Your task to perform on an android device: toggle javascript in the chrome app Image 0: 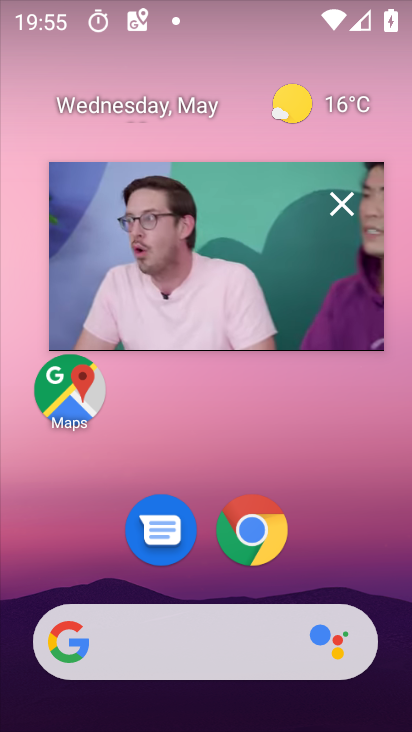
Step 0: press home button
Your task to perform on an android device: toggle javascript in the chrome app Image 1: 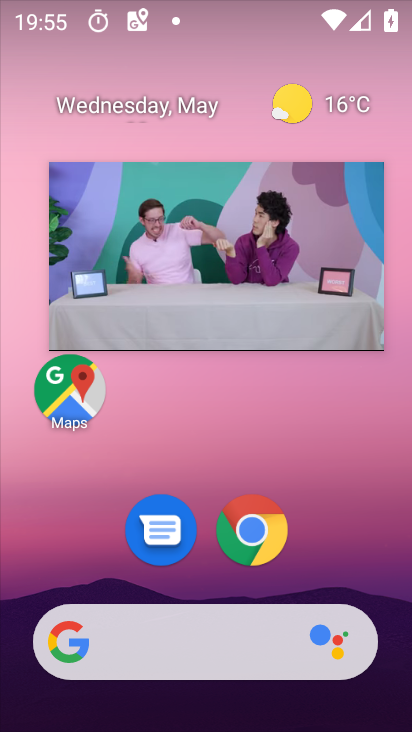
Step 1: click (198, 246)
Your task to perform on an android device: toggle javascript in the chrome app Image 2: 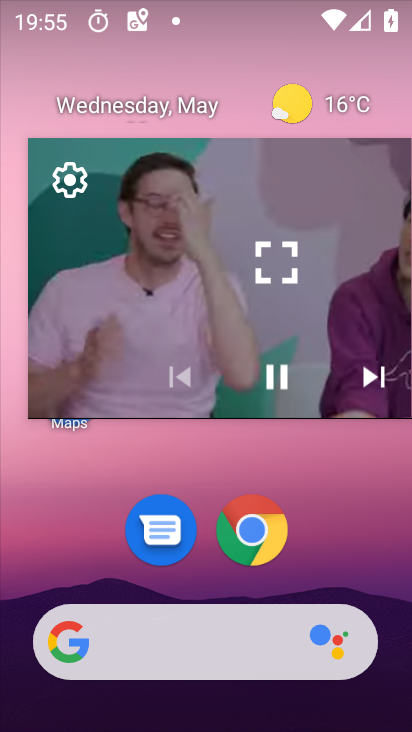
Step 2: click (262, 209)
Your task to perform on an android device: toggle javascript in the chrome app Image 3: 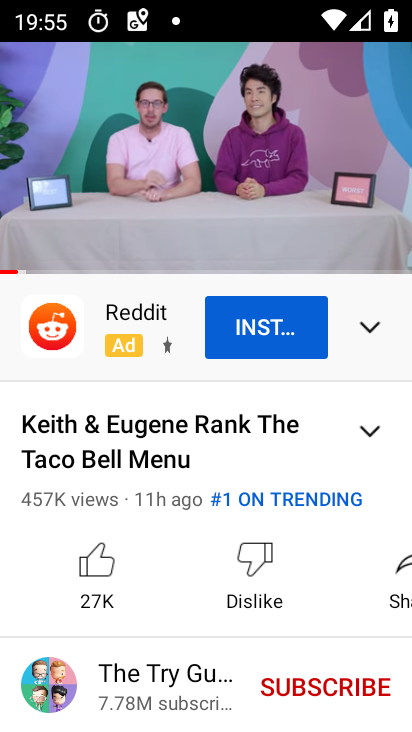
Step 3: press home button
Your task to perform on an android device: toggle javascript in the chrome app Image 4: 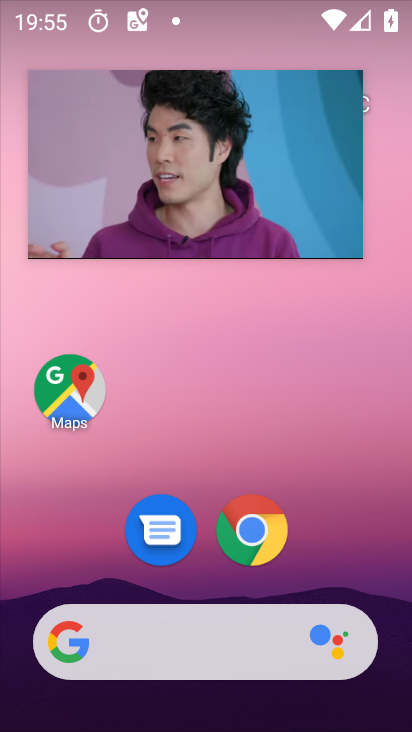
Step 4: click (237, 542)
Your task to perform on an android device: toggle javascript in the chrome app Image 5: 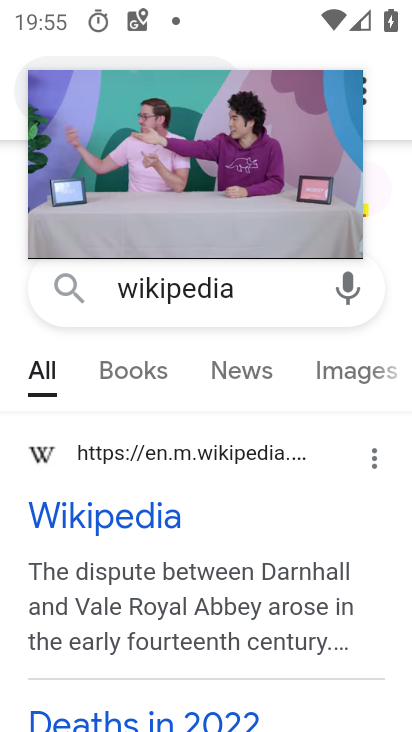
Step 5: drag from (222, 108) to (252, 705)
Your task to perform on an android device: toggle javascript in the chrome app Image 6: 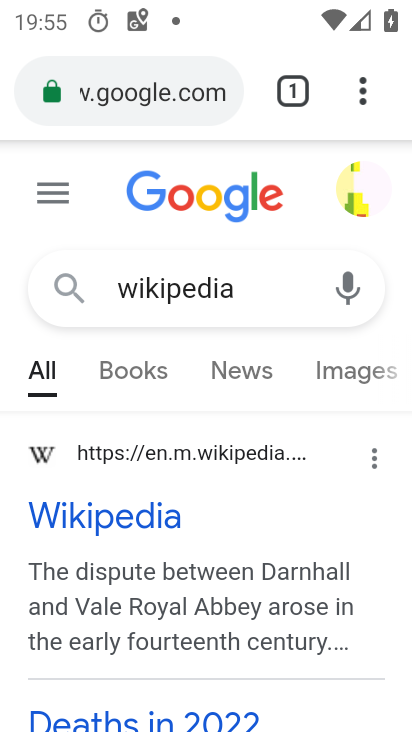
Step 6: click (366, 95)
Your task to perform on an android device: toggle javascript in the chrome app Image 7: 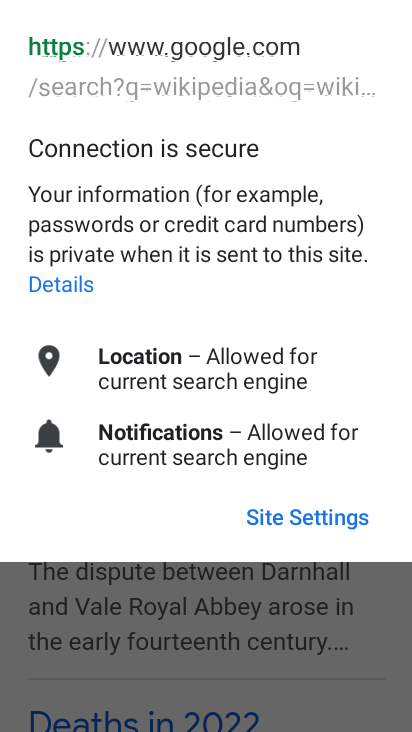
Step 7: click (265, 692)
Your task to perform on an android device: toggle javascript in the chrome app Image 8: 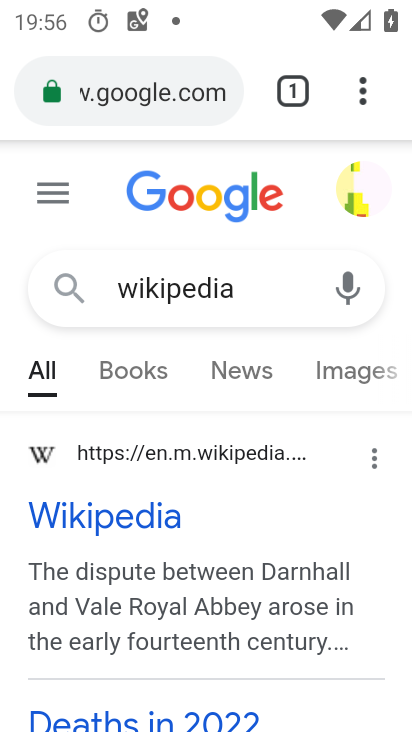
Step 8: click (362, 91)
Your task to perform on an android device: toggle javascript in the chrome app Image 9: 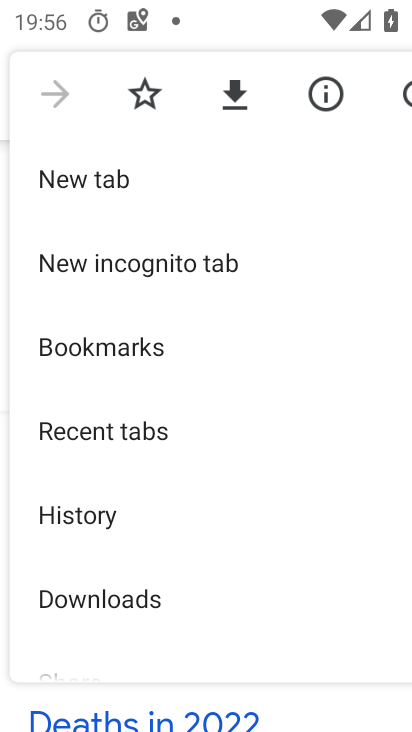
Step 9: drag from (192, 638) to (244, 199)
Your task to perform on an android device: toggle javascript in the chrome app Image 10: 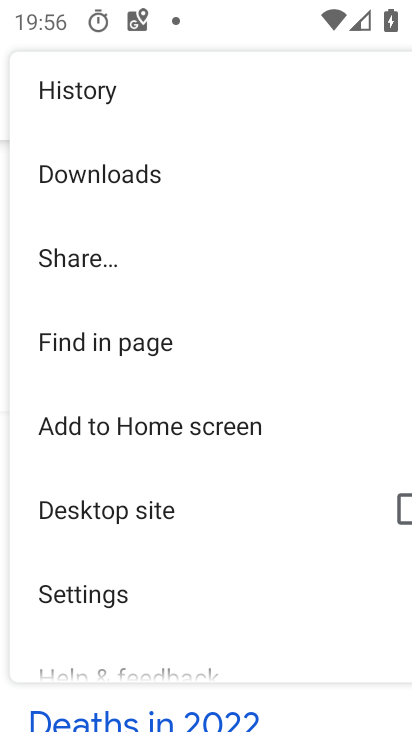
Step 10: click (96, 592)
Your task to perform on an android device: toggle javascript in the chrome app Image 11: 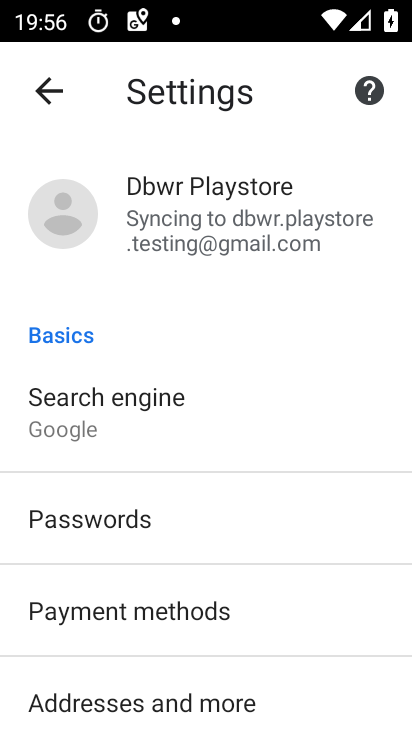
Step 11: drag from (193, 627) to (224, 261)
Your task to perform on an android device: toggle javascript in the chrome app Image 12: 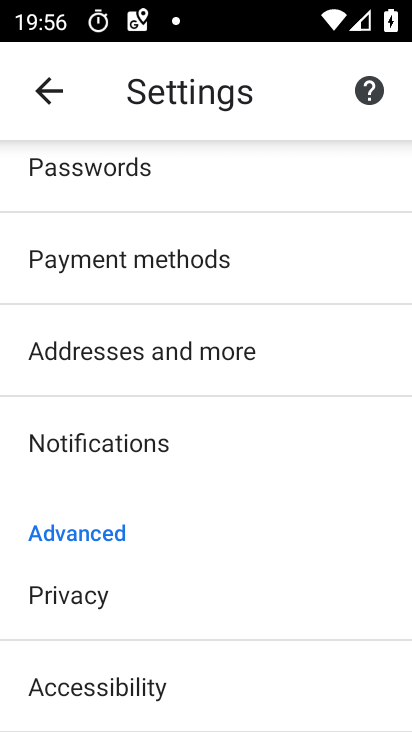
Step 12: drag from (124, 635) to (212, 291)
Your task to perform on an android device: toggle javascript in the chrome app Image 13: 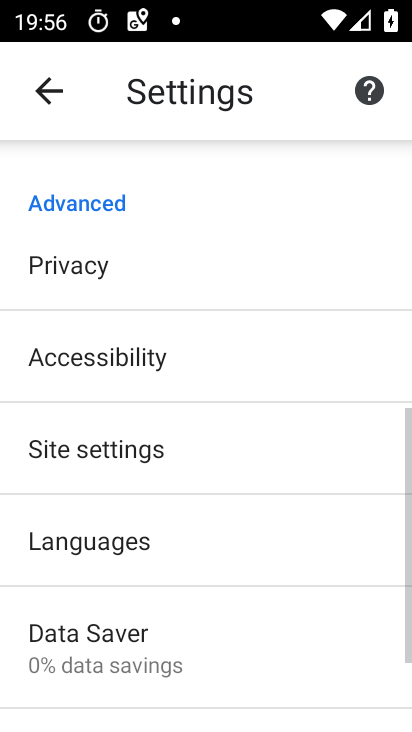
Step 13: drag from (114, 588) to (187, 297)
Your task to perform on an android device: toggle javascript in the chrome app Image 14: 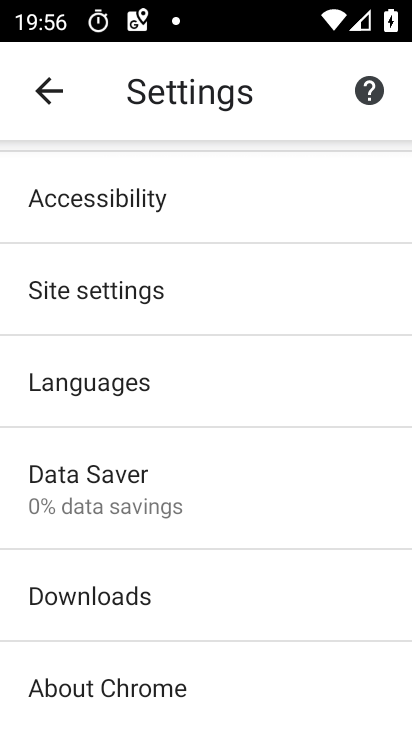
Step 14: click (130, 304)
Your task to perform on an android device: toggle javascript in the chrome app Image 15: 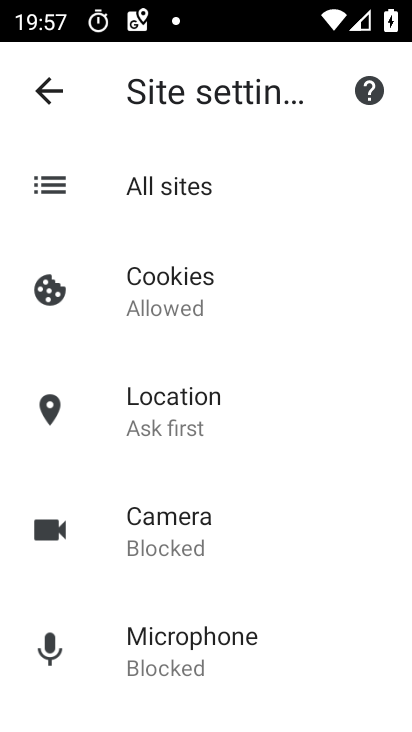
Step 15: drag from (250, 579) to (305, 223)
Your task to perform on an android device: toggle javascript in the chrome app Image 16: 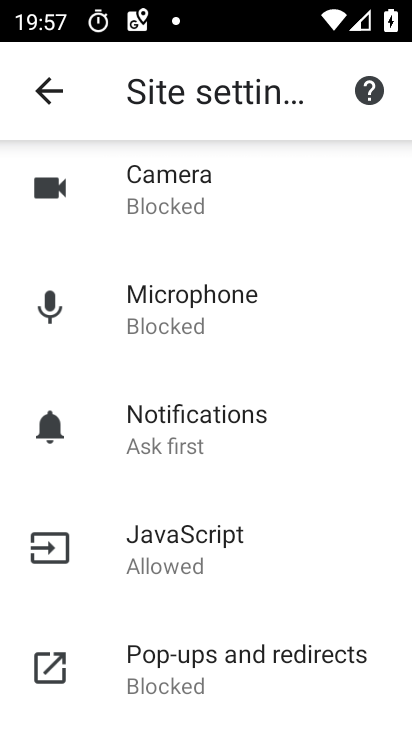
Step 16: click (207, 544)
Your task to perform on an android device: toggle javascript in the chrome app Image 17: 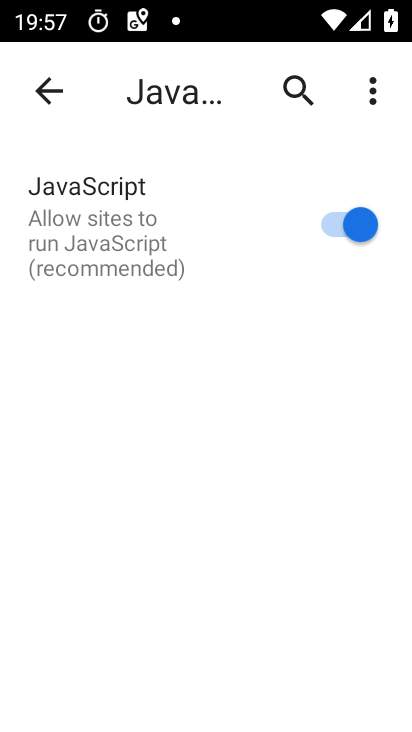
Step 17: click (339, 222)
Your task to perform on an android device: toggle javascript in the chrome app Image 18: 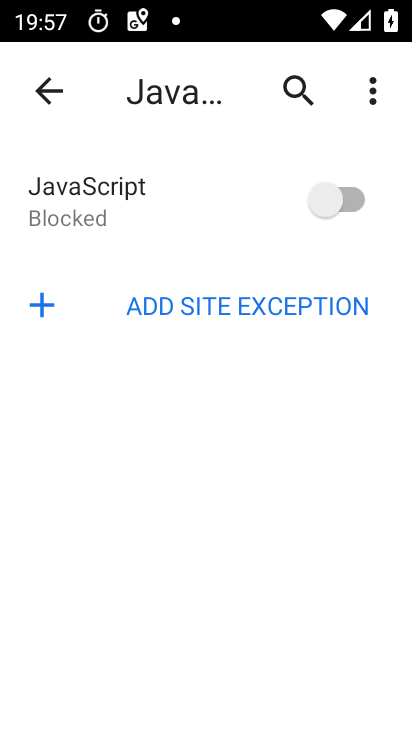
Step 18: task complete